Your task to perform on an android device: Go to Yahoo.com Image 0: 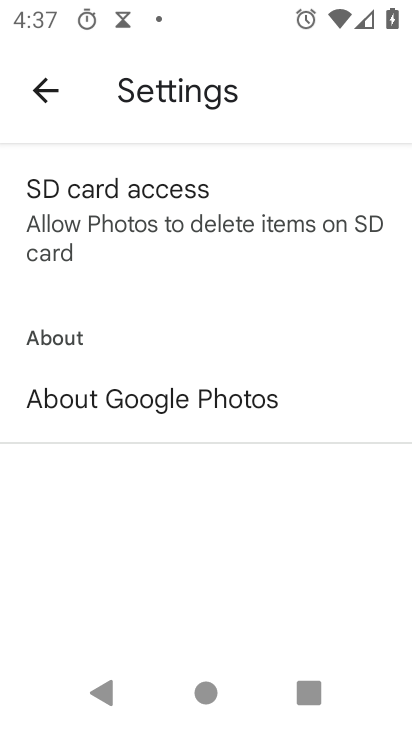
Step 0: press home button
Your task to perform on an android device: Go to Yahoo.com Image 1: 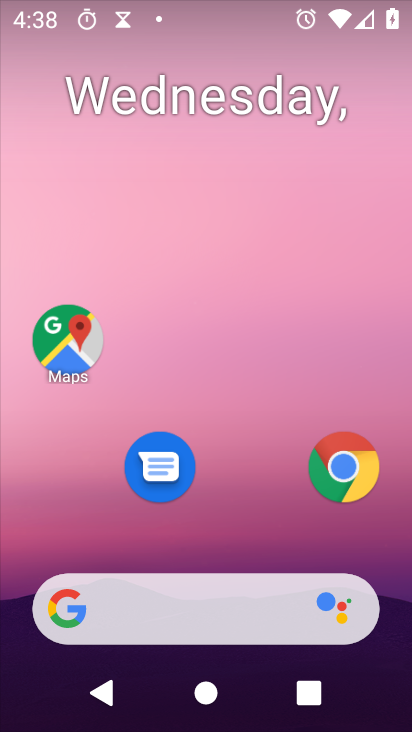
Step 1: click (370, 484)
Your task to perform on an android device: Go to Yahoo.com Image 2: 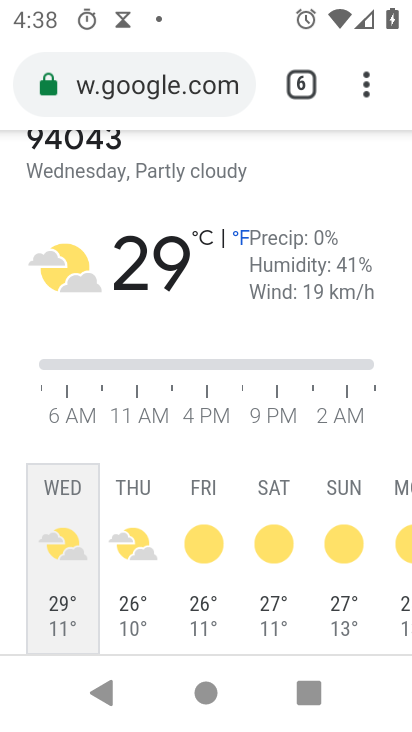
Step 2: click (362, 101)
Your task to perform on an android device: Go to Yahoo.com Image 3: 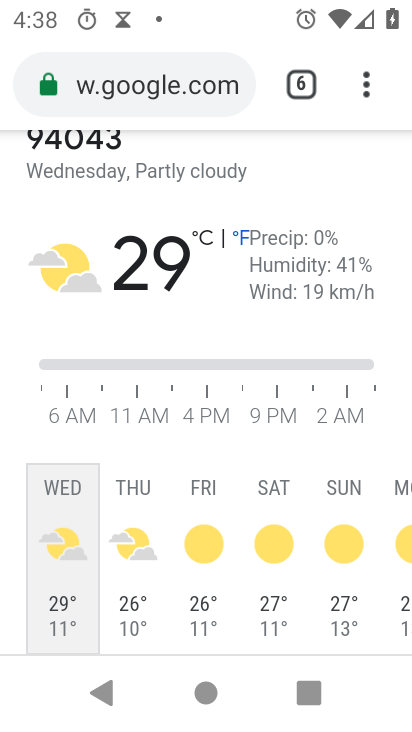
Step 3: click (186, 98)
Your task to perform on an android device: Go to Yahoo.com Image 4: 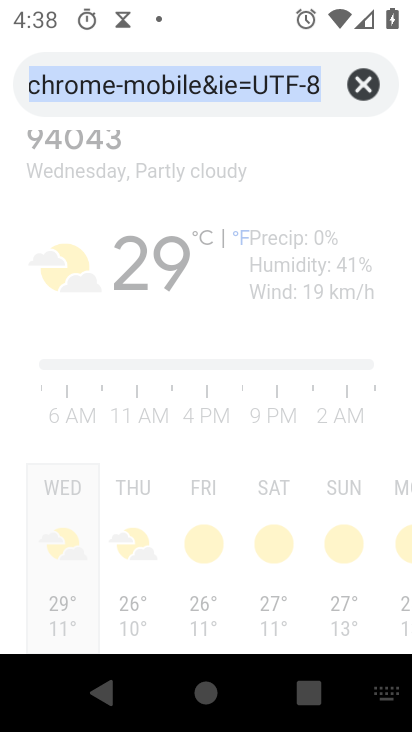
Step 4: type "yahoo.com"
Your task to perform on an android device: Go to Yahoo.com Image 5: 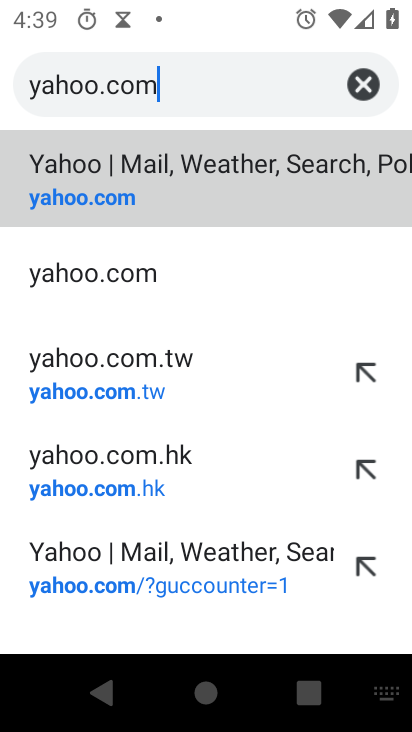
Step 5: click (112, 208)
Your task to perform on an android device: Go to Yahoo.com Image 6: 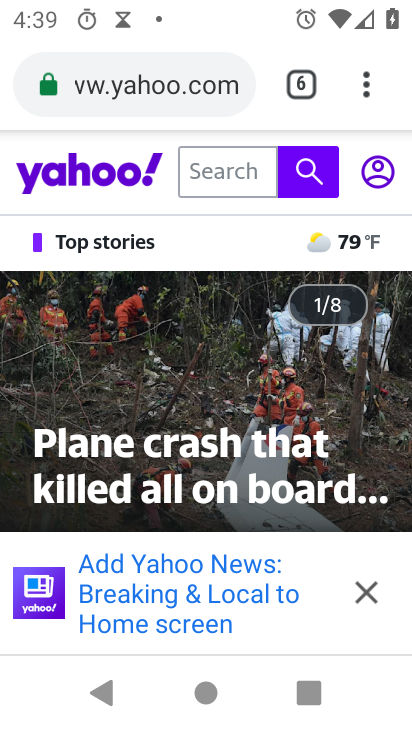
Step 6: task complete